Your task to perform on an android device: Open network settings Image 0: 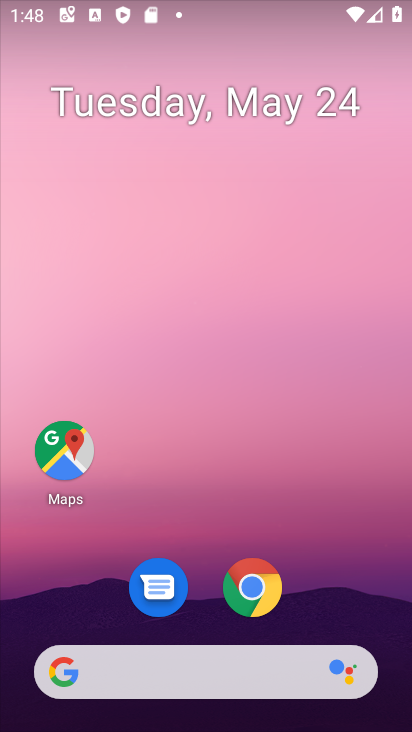
Step 0: click (197, 670)
Your task to perform on an android device: Open network settings Image 1: 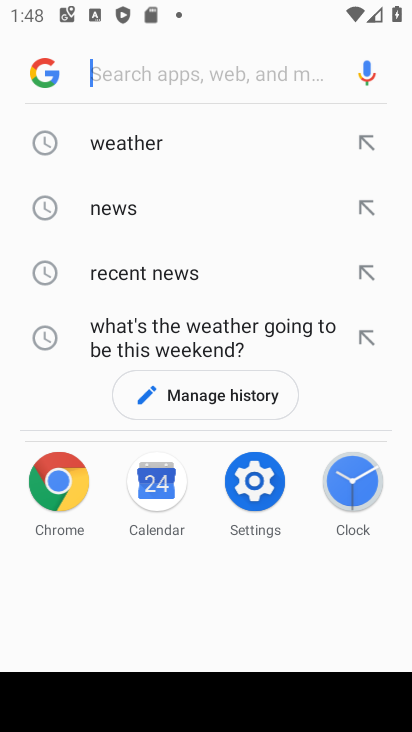
Step 1: press home button
Your task to perform on an android device: Open network settings Image 2: 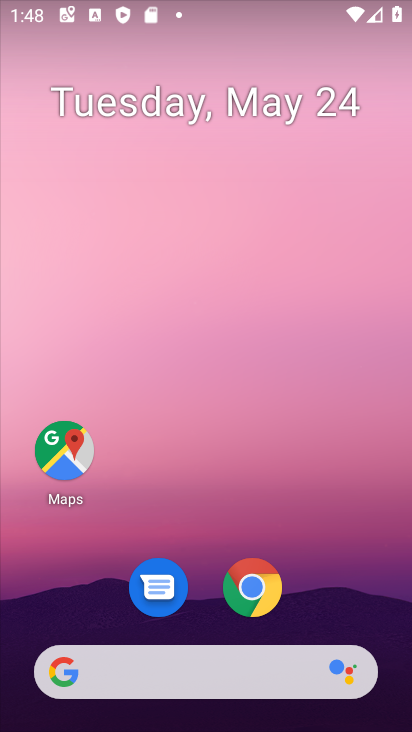
Step 2: drag from (152, 715) to (202, 146)
Your task to perform on an android device: Open network settings Image 3: 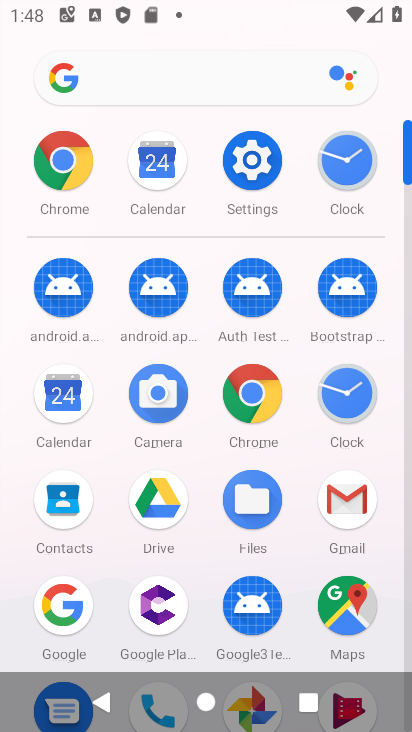
Step 3: click (255, 146)
Your task to perform on an android device: Open network settings Image 4: 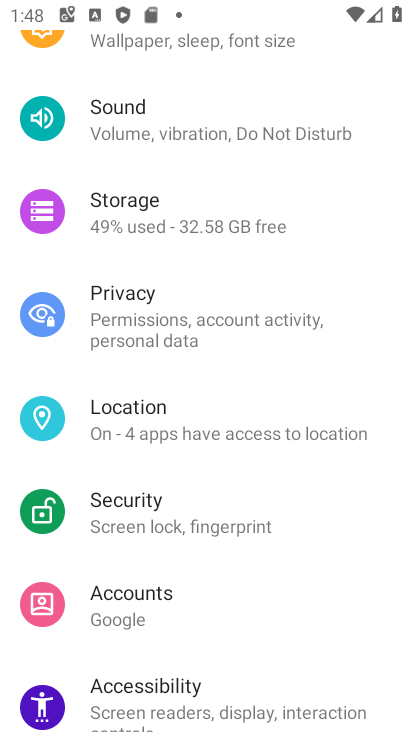
Step 4: drag from (252, 155) to (259, 471)
Your task to perform on an android device: Open network settings Image 5: 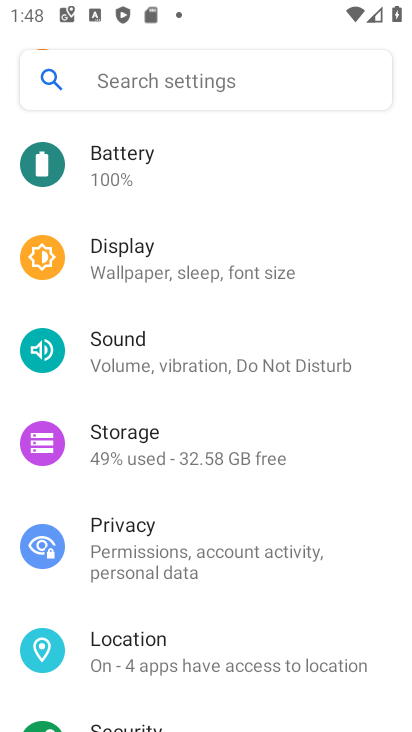
Step 5: drag from (225, 172) to (229, 631)
Your task to perform on an android device: Open network settings Image 6: 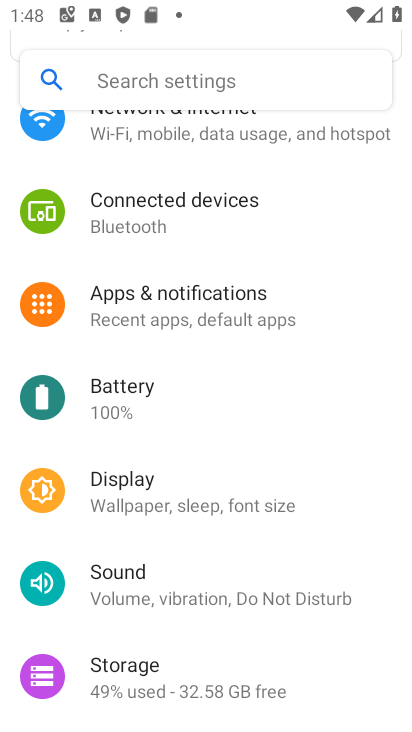
Step 6: click (337, 114)
Your task to perform on an android device: Open network settings Image 7: 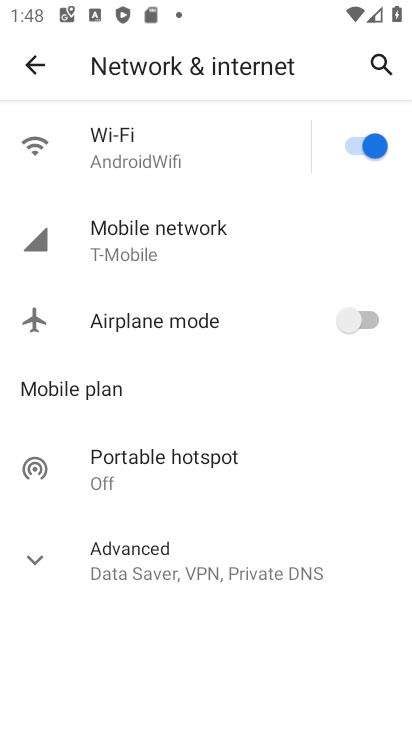
Step 7: task complete